Your task to perform on an android device: move a message to another label in the gmail app Image 0: 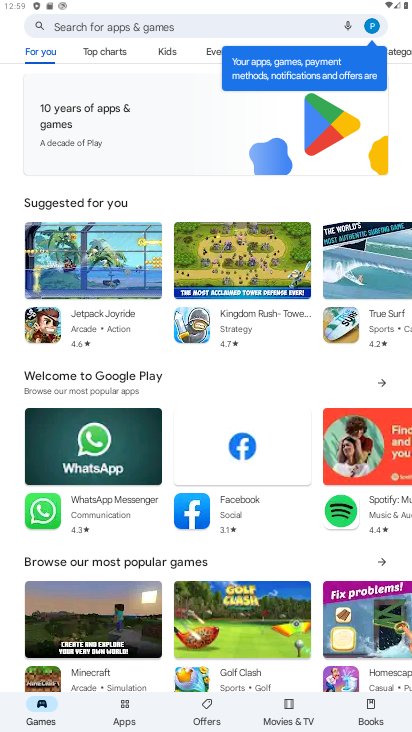
Step 0: press home button
Your task to perform on an android device: move a message to another label in the gmail app Image 1: 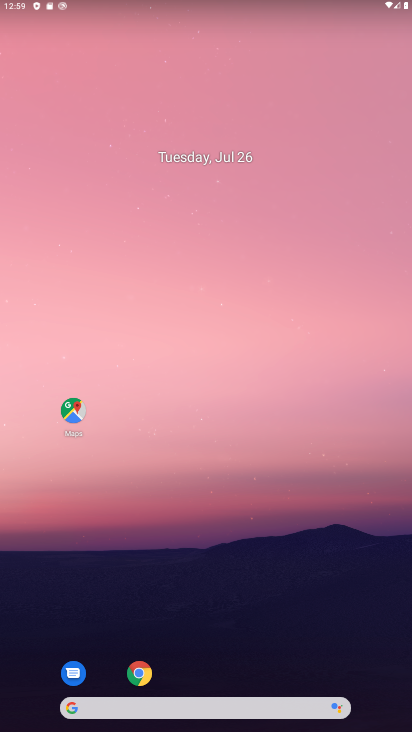
Step 1: drag from (218, 653) to (250, 100)
Your task to perform on an android device: move a message to another label in the gmail app Image 2: 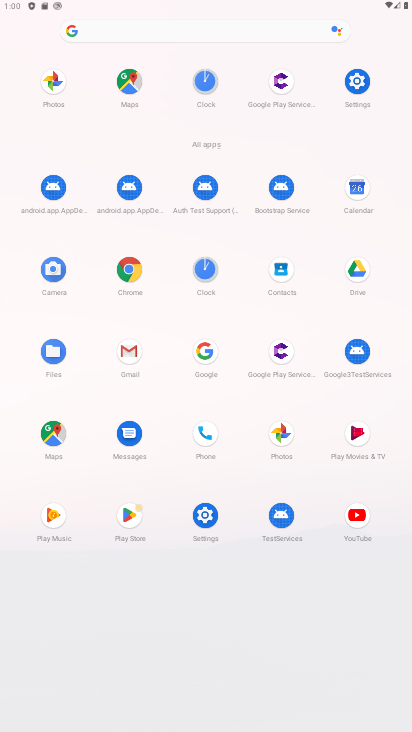
Step 2: click (132, 347)
Your task to perform on an android device: move a message to another label in the gmail app Image 3: 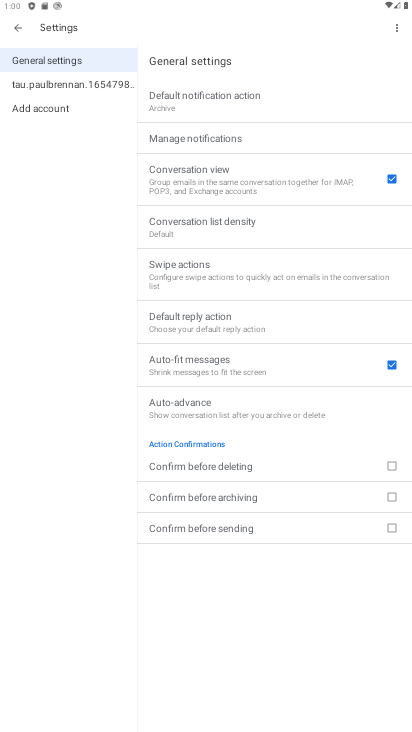
Step 3: click (15, 23)
Your task to perform on an android device: move a message to another label in the gmail app Image 4: 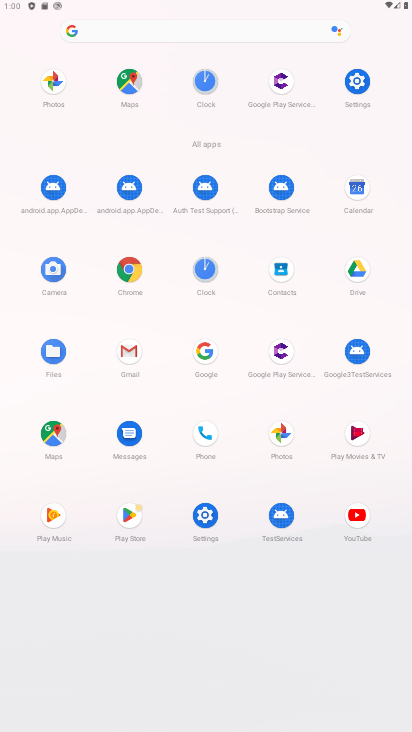
Step 4: click (126, 348)
Your task to perform on an android device: move a message to another label in the gmail app Image 5: 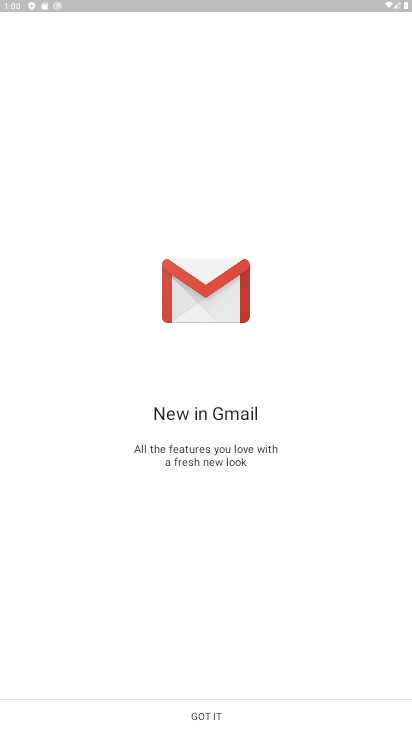
Step 5: click (213, 716)
Your task to perform on an android device: move a message to another label in the gmail app Image 6: 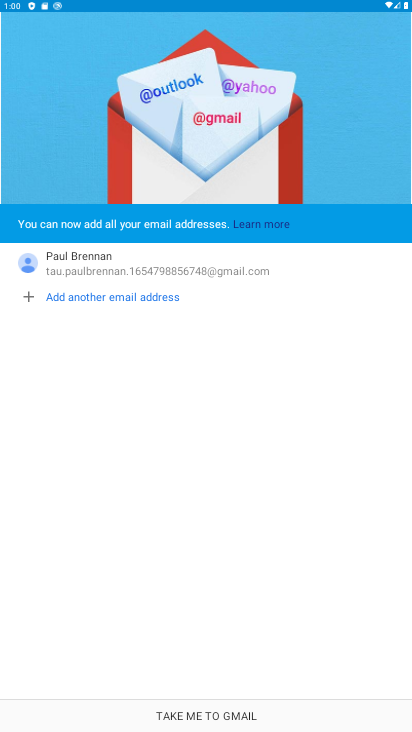
Step 6: click (207, 709)
Your task to perform on an android device: move a message to another label in the gmail app Image 7: 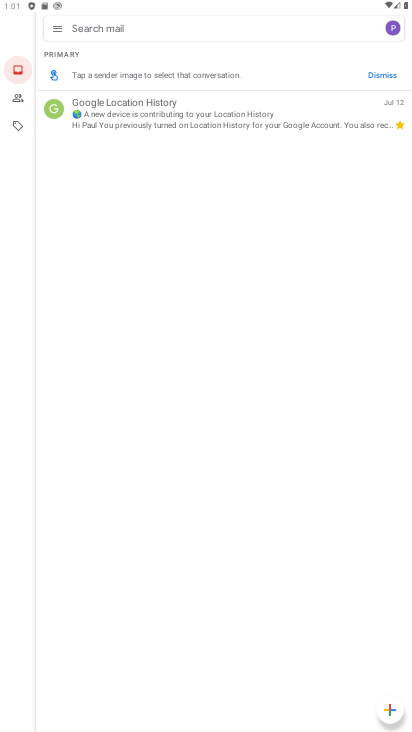
Step 7: click (56, 104)
Your task to perform on an android device: move a message to another label in the gmail app Image 8: 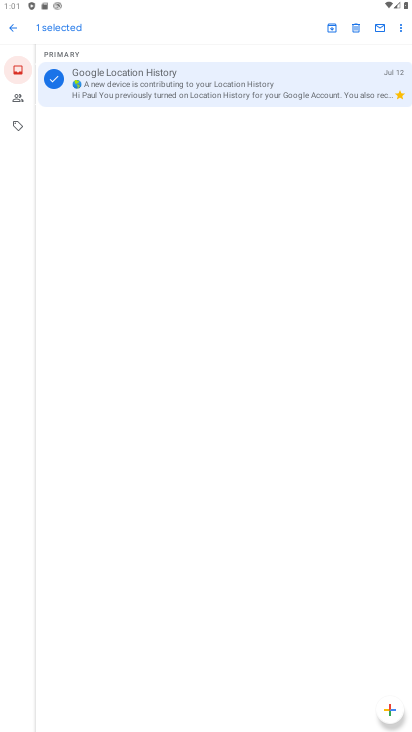
Step 8: click (403, 26)
Your task to perform on an android device: move a message to another label in the gmail app Image 9: 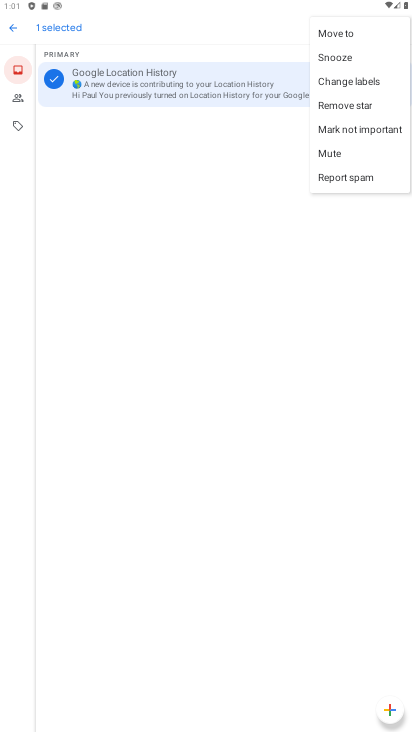
Step 9: click (344, 37)
Your task to perform on an android device: move a message to another label in the gmail app Image 10: 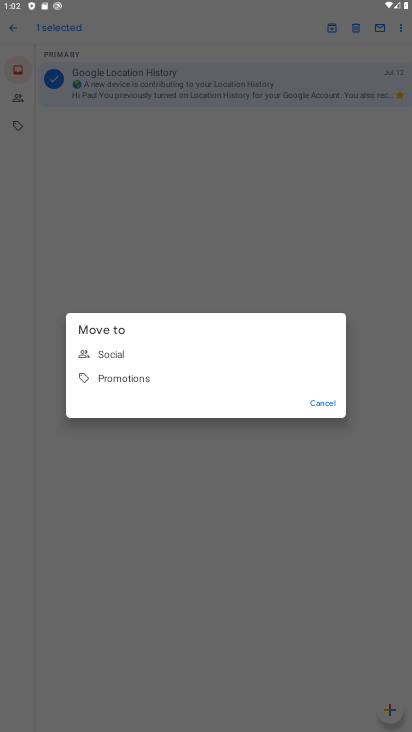
Step 10: click (107, 373)
Your task to perform on an android device: move a message to another label in the gmail app Image 11: 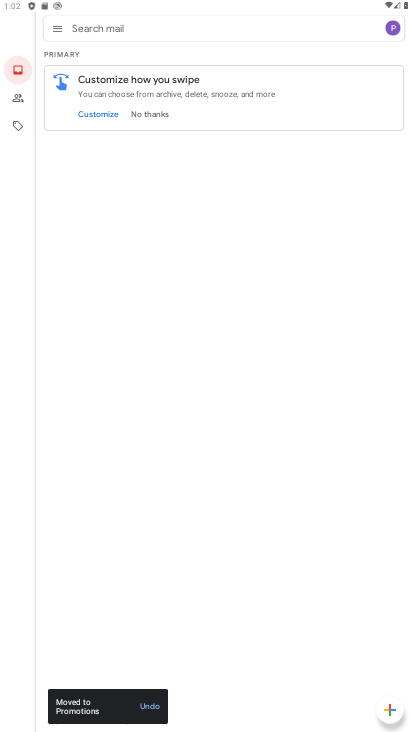
Step 11: task complete